Your task to perform on an android device: Open the stopwatch Image 0: 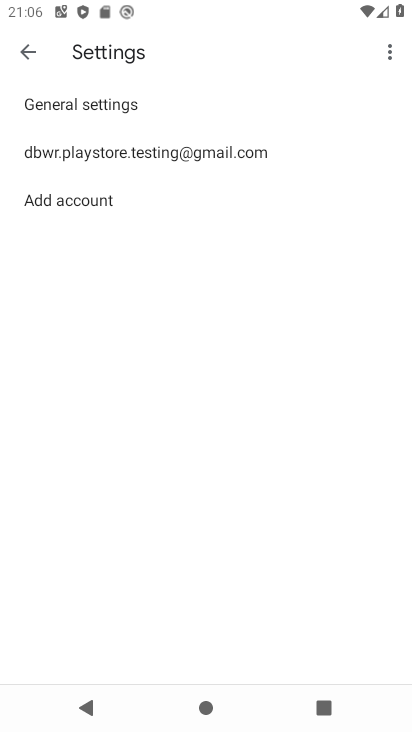
Step 0: press home button
Your task to perform on an android device: Open the stopwatch Image 1: 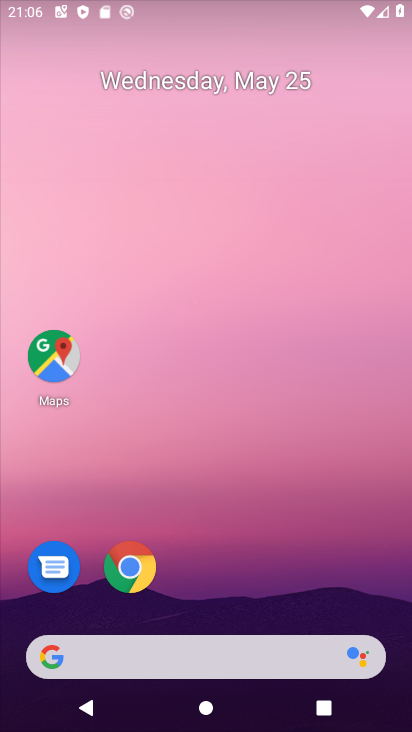
Step 1: drag from (273, 529) to (281, 24)
Your task to perform on an android device: Open the stopwatch Image 2: 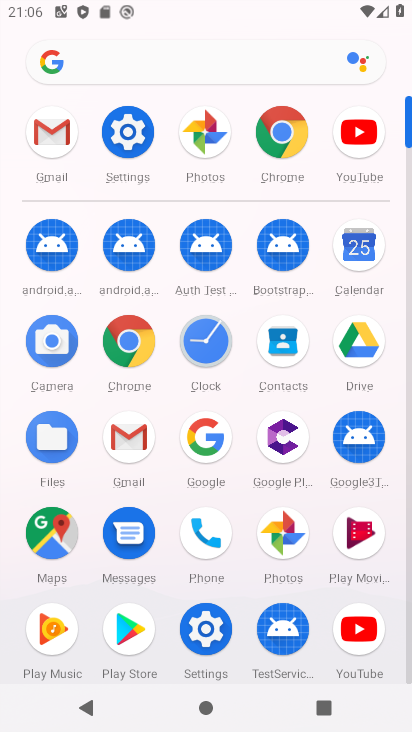
Step 2: click (216, 352)
Your task to perform on an android device: Open the stopwatch Image 3: 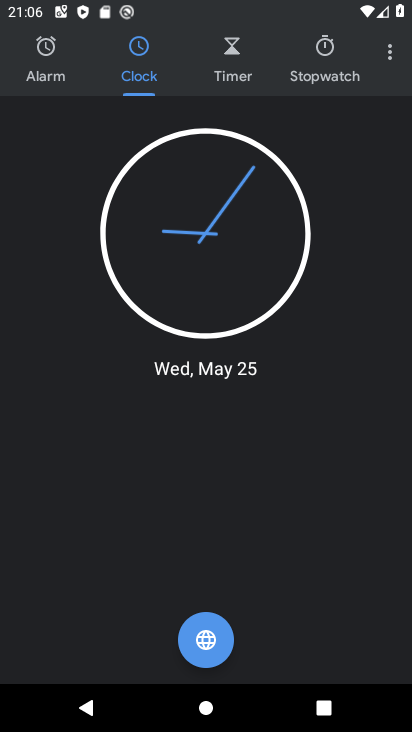
Step 3: click (332, 58)
Your task to perform on an android device: Open the stopwatch Image 4: 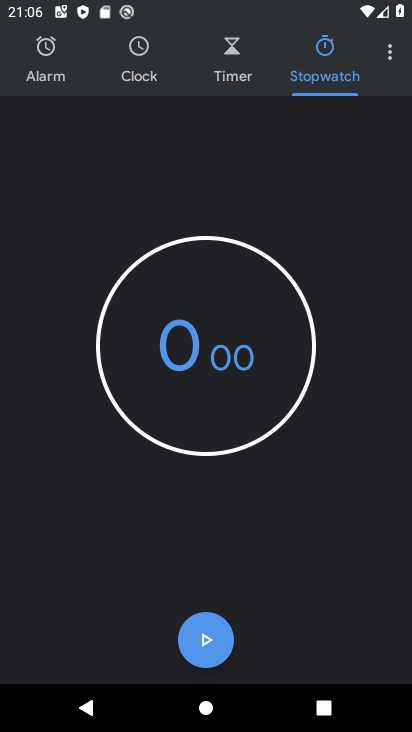
Step 4: task complete